Your task to perform on an android device: Go to CNN.com Image 0: 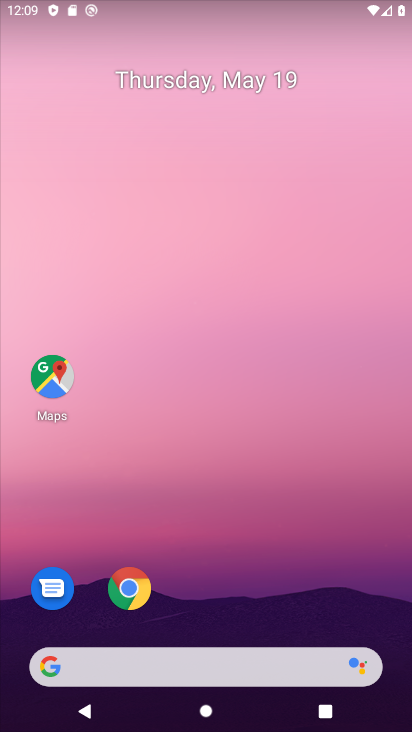
Step 0: click (134, 597)
Your task to perform on an android device: Go to CNN.com Image 1: 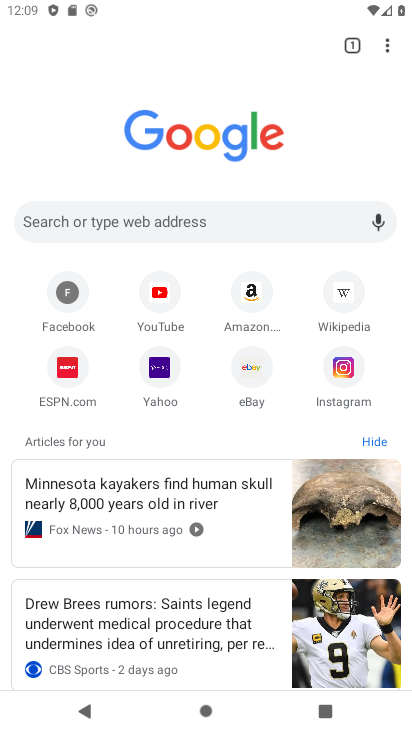
Step 1: click (187, 227)
Your task to perform on an android device: Go to CNN.com Image 2: 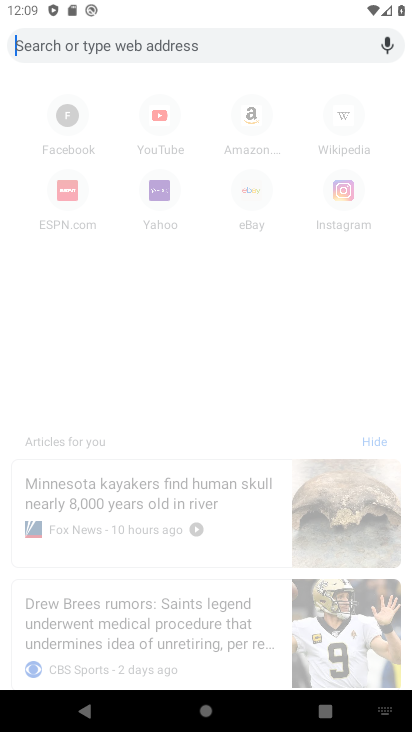
Step 2: type "cnn.com"
Your task to perform on an android device: Go to CNN.com Image 3: 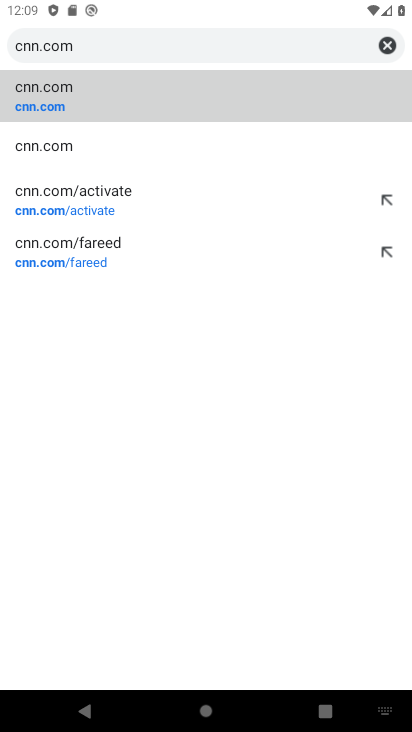
Step 3: click (51, 106)
Your task to perform on an android device: Go to CNN.com Image 4: 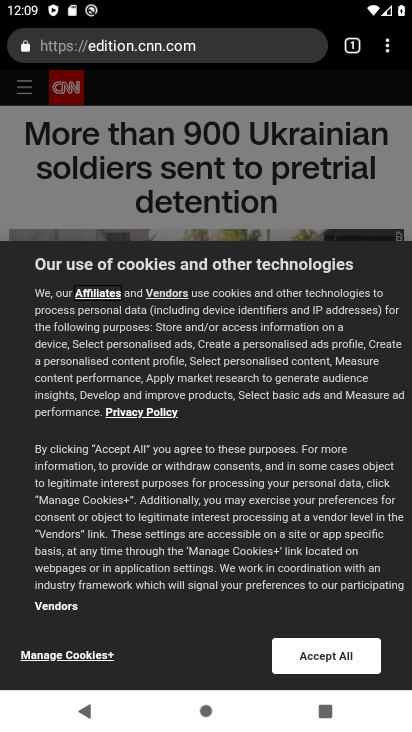
Step 4: task complete